Your task to perform on an android device: turn on location history Image 0: 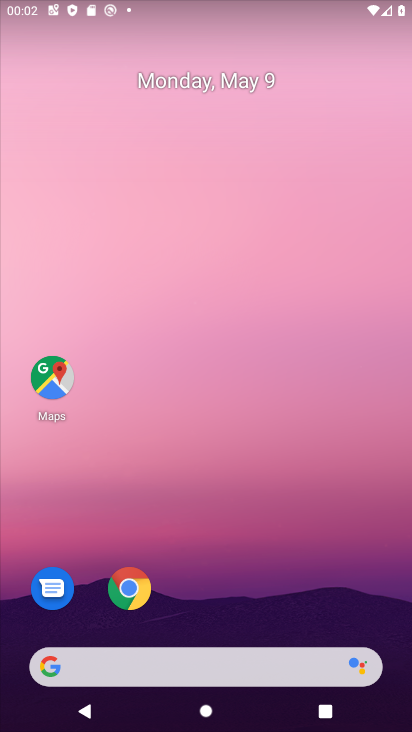
Step 0: drag from (221, 434) to (152, 121)
Your task to perform on an android device: turn on location history Image 1: 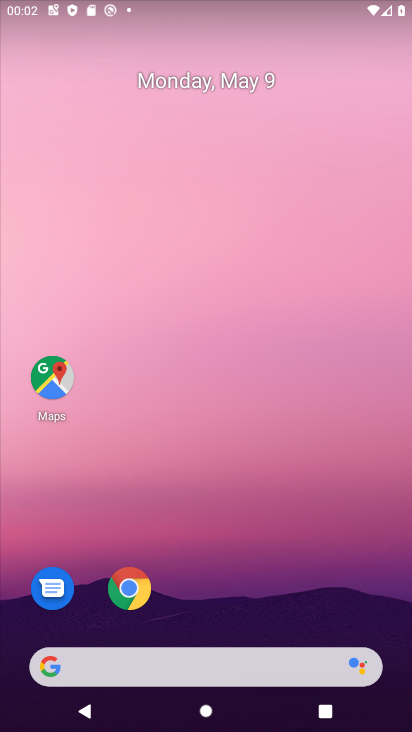
Step 1: drag from (231, 561) to (261, 17)
Your task to perform on an android device: turn on location history Image 2: 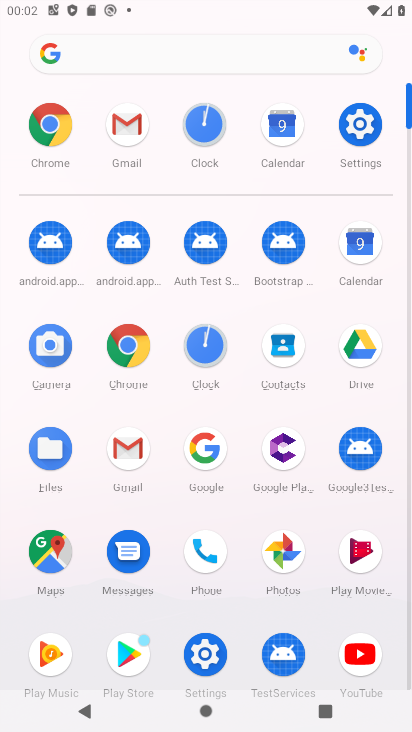
Step 2: click (360, 122)
Your task to perform on an android device: turn on location history Image 3: 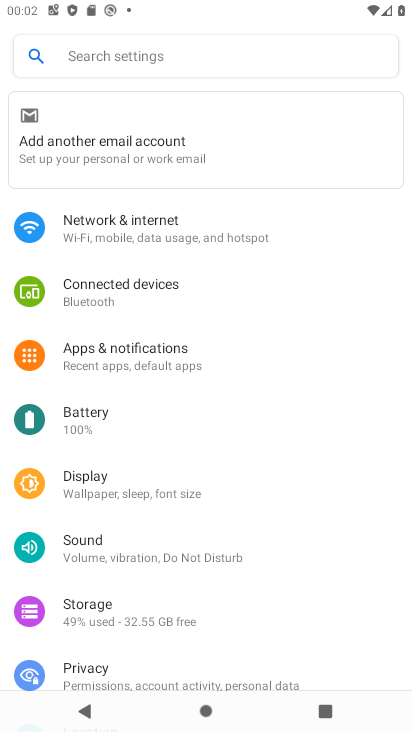
Step 3: drag from (211, 580) to (172, 264)
Your task to perform on an android device: turn on location history Image 4: 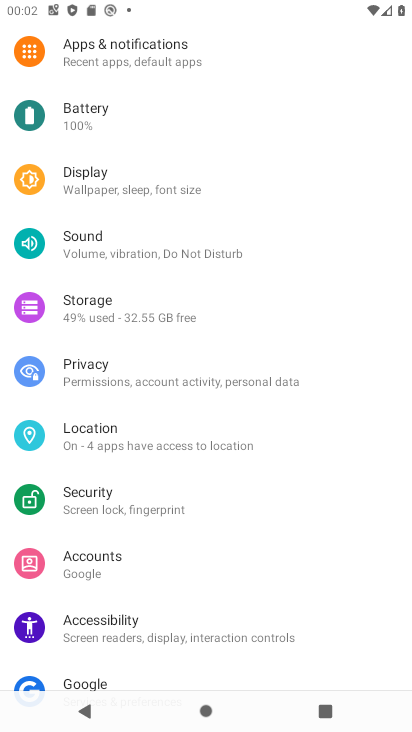
Step 4: click (76, 427)
Your task to perform on an android device: turn on location history Image 5: 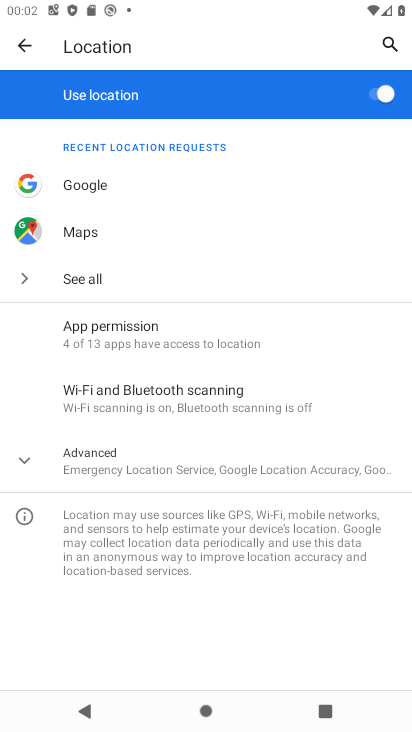
Step 5: click (23, 455)
Your task to perform on an android device: turn on location history Image 6: 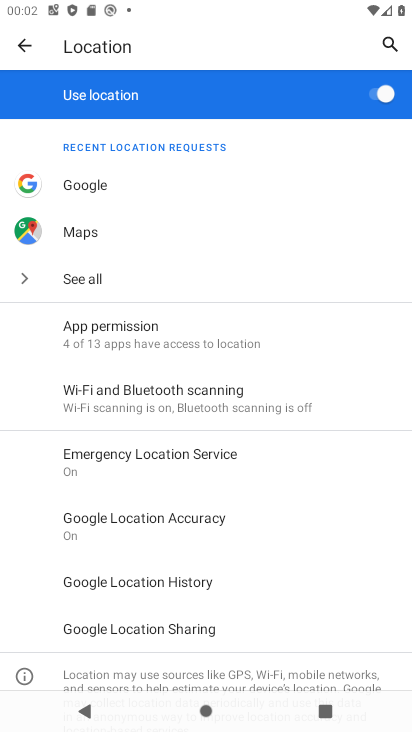
Step 6: drag from (259, 451) to (230, 332)
Your task to perform on an android device: turn on location history Image 7: 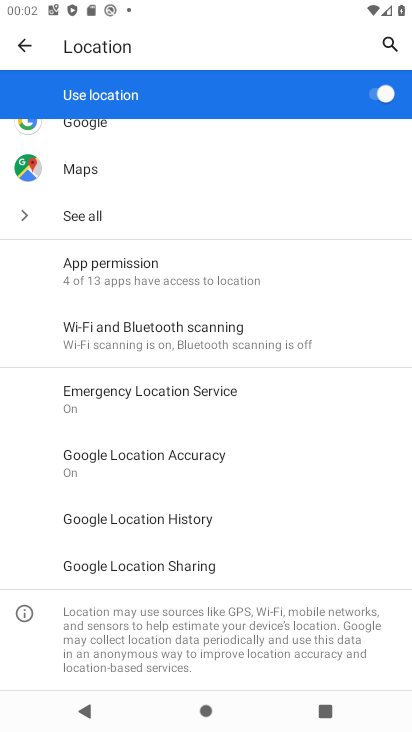
Step 7: click (126, 518)
Your task to perform on an android device: turn on location history Image 8: 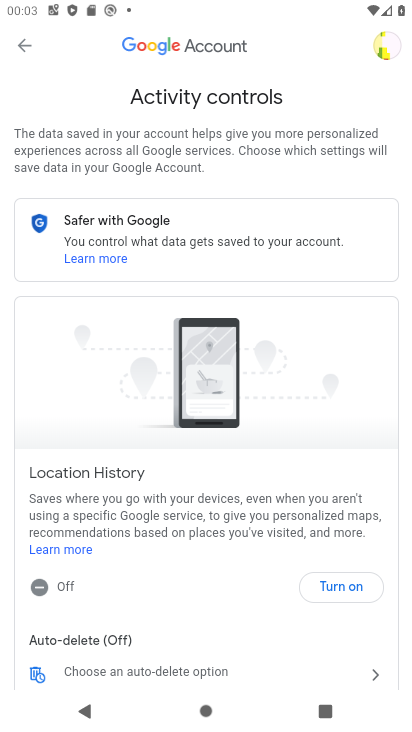
Step 8: click (328, 580)
Your task to perform on an android device: turn on location history Image 9: 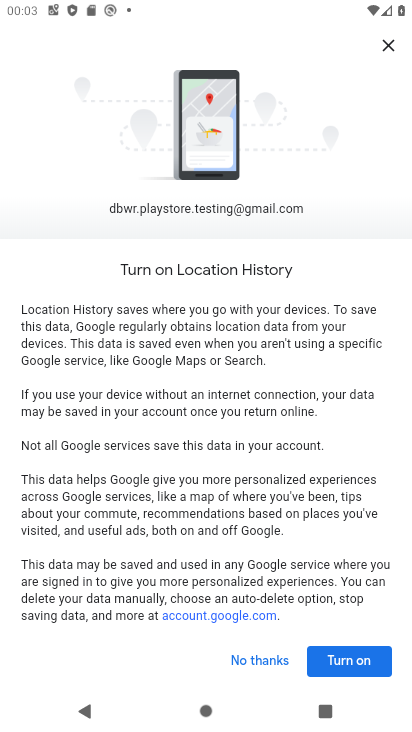
Step 9: click (344, 655)
Your task to perform on an android device: turn on location history Image 10: 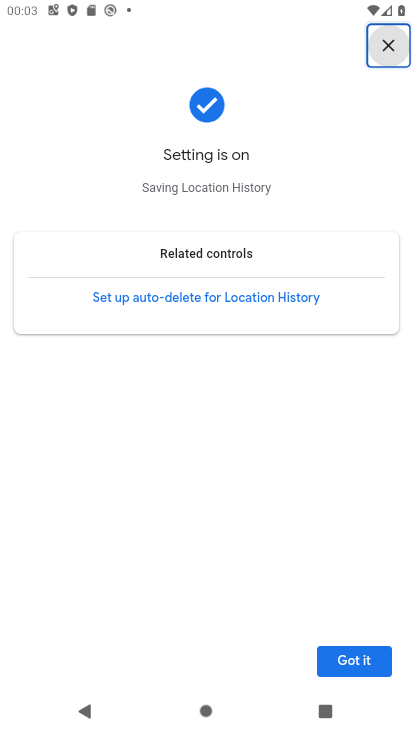
Step 10: click (364, 657)
Your task to perform on an android device: turn on location history Image 11: 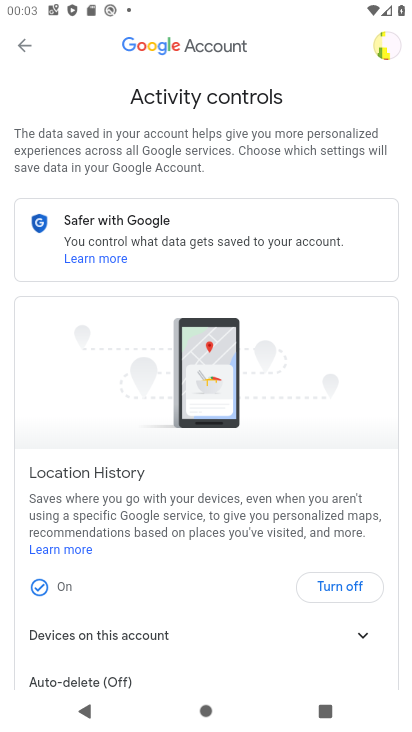
Step 11: task complete